Your task to perform on an android device: all mails in gmail Image 0: 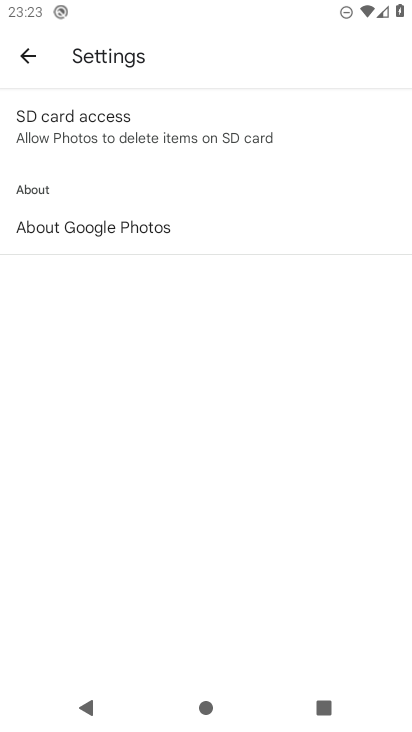
Step 0: press home button
Your task to perform on an android device: all mails in gmail Image 1: 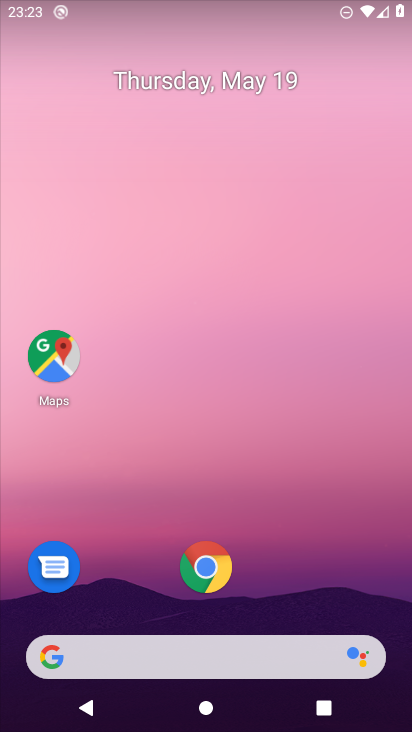
Step 1: drag from (3, 261) to (410, 266)
Your task to perform on an android device: all mails in gmail Image 2: 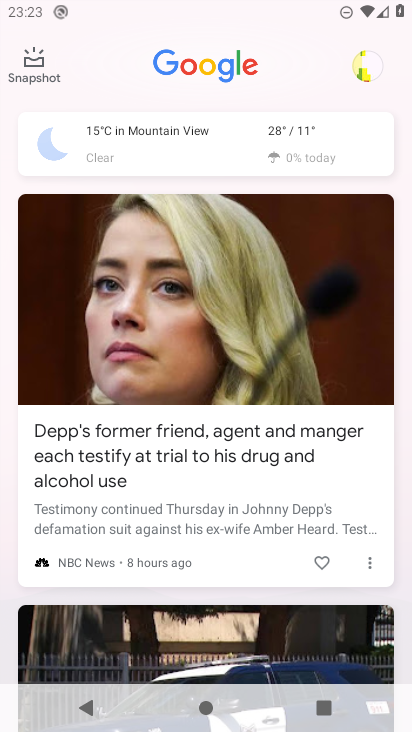
Step 2: click (252, 136)
Your task to perform on an android device: all mails in gmail Image 3: 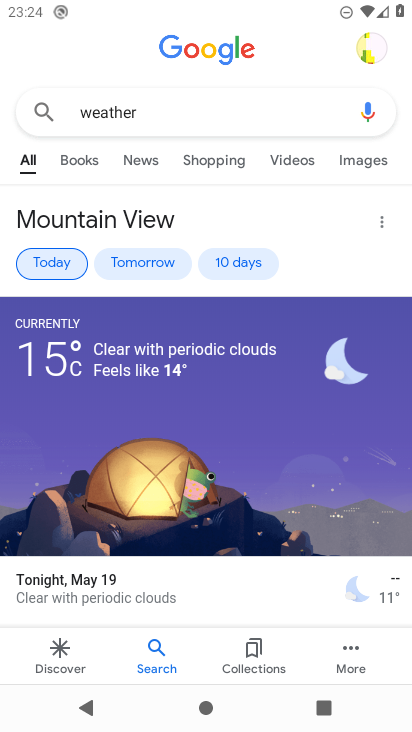
Step 3: press home button
Your task to perform on an android device: all mails in gmail Image 4: 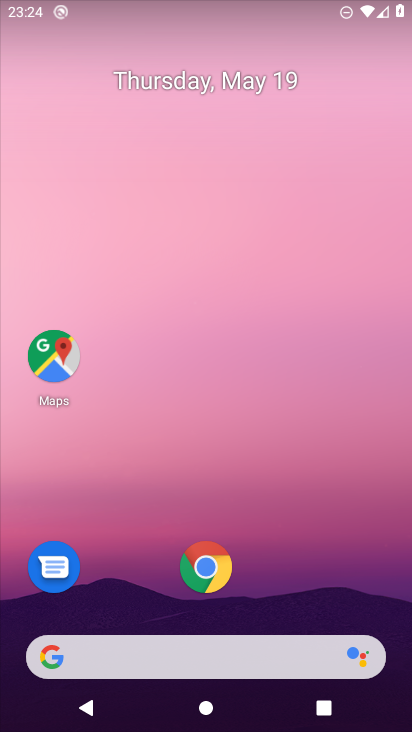
Step 4: drag from (268, 620) to (293, 104)
Your task to perform on an android device: all mails in gmail Image 5: 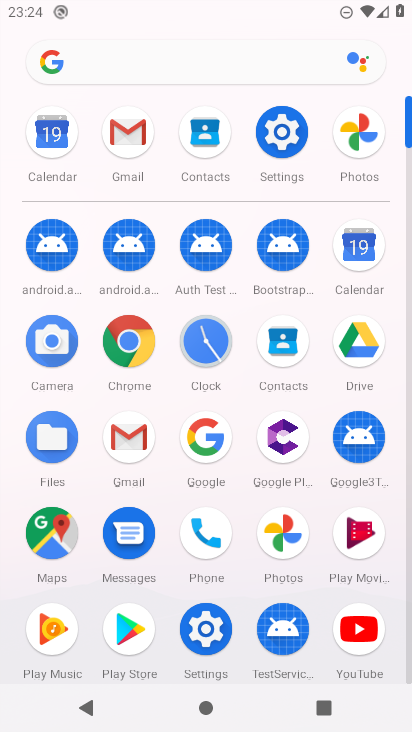
Step 5: click (124, 118)
Your task to perform on an android device: all mails in gmail Image 6: 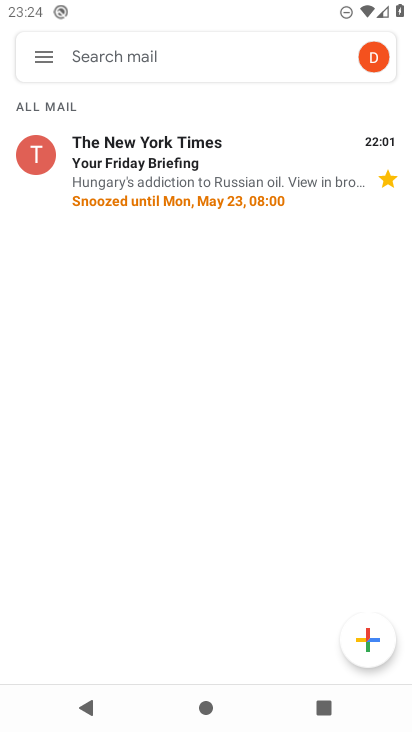
Step 6: task complete